Your task to perform on an android device: Open Youtube and go to "Your channel" Image 0: 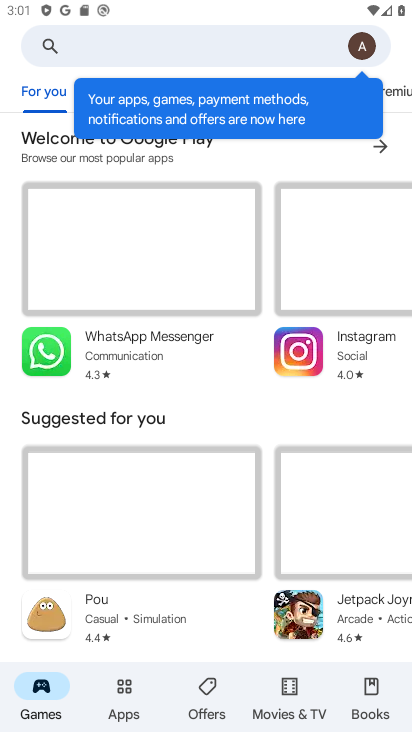
Step 0: press home button
Your task to perform on an android device: Open Youtube and go to "Your channel" Image 1: 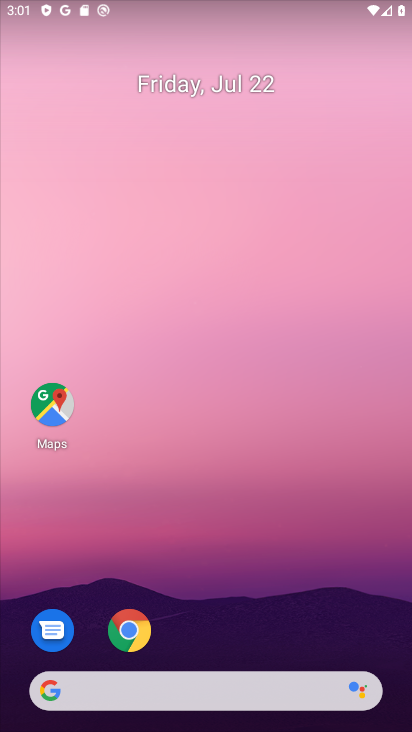
Step 1: drag from (227, 692) to (197, 87)
Your task to perform on an android device: Open Youtube and go to "Your channel" Image 2: 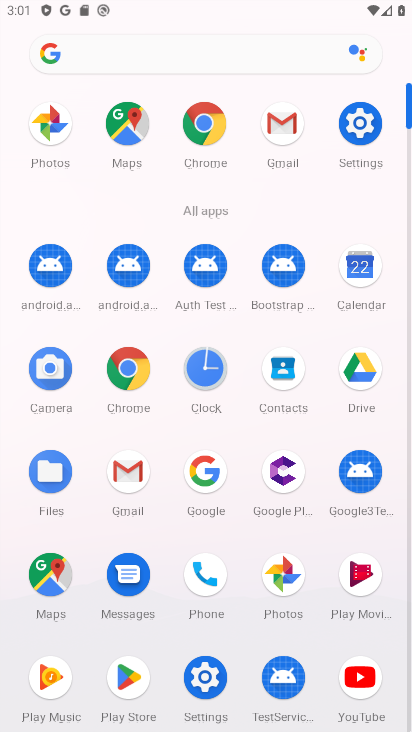
Step 2: click (365, 652)
Your task to perform on an android device: Open Youtube and go to "Your channel" Image 3: 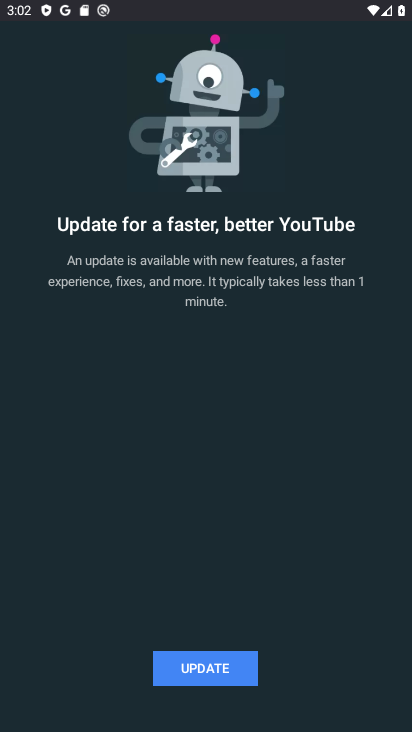
Step 3: click (235, 666)
Your task to perform on an android device: Open Youtube and go to "Your channel" Image 4: 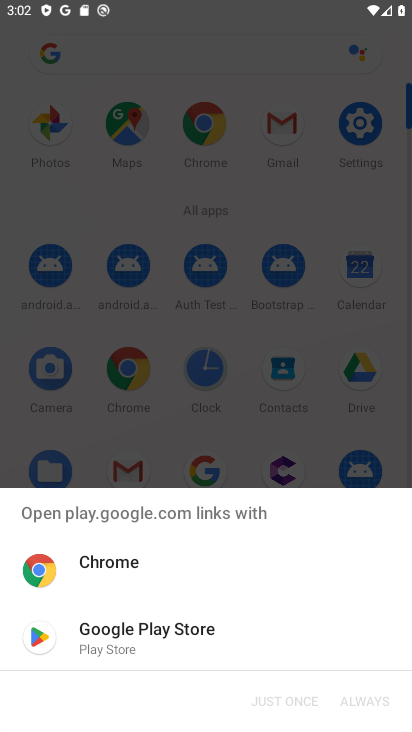
Step 4: click (131, 654)
Your task to perform on an android device: Open Youtube and go to "Your channel" Image 5: 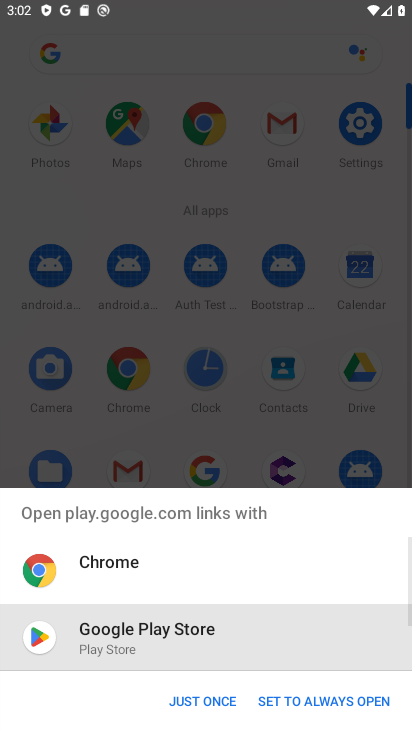
Step 5: click (182, 704)
Your task to perform on an android device: Open Youtube and go to "Your channel" Image 6: 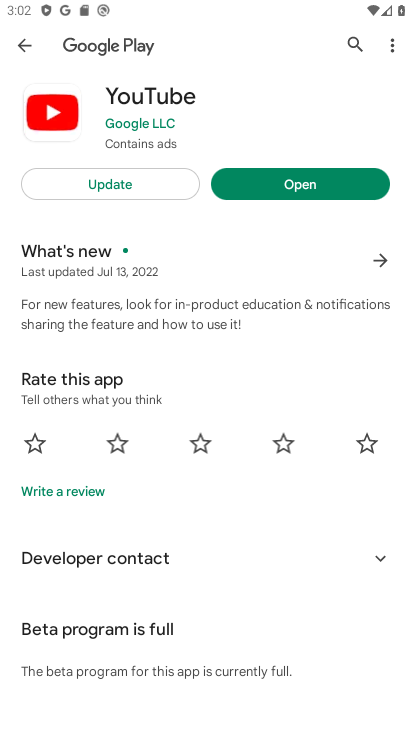
Step 6: click (164, 182)
Your task to perform on an android device: Open Youtube and go to "Your channel" Image 7: 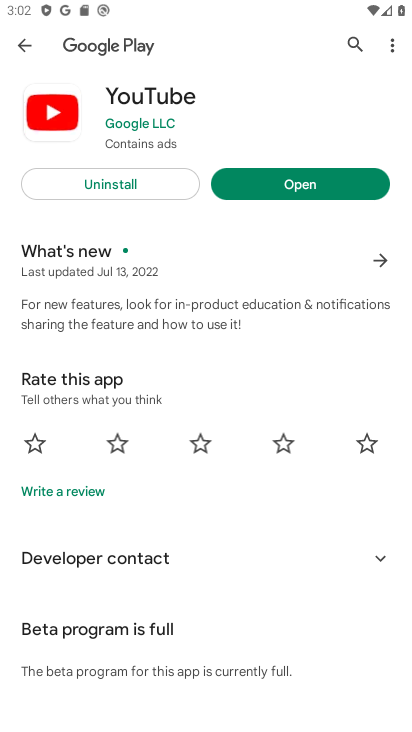
Step 7: click (273, 194)
Your task to perform on an android device: Open Youtube and go to "Your channel" Image 8: 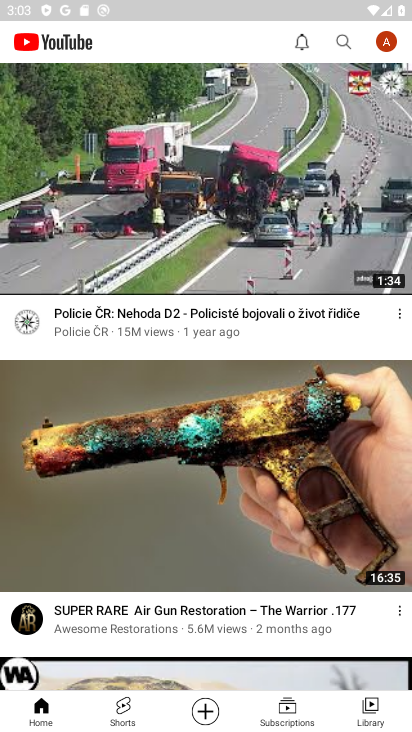
Step 8: click (380, 712)
Your task to perform on an android device: Open Youtube and go to "Your channel" Image 9: 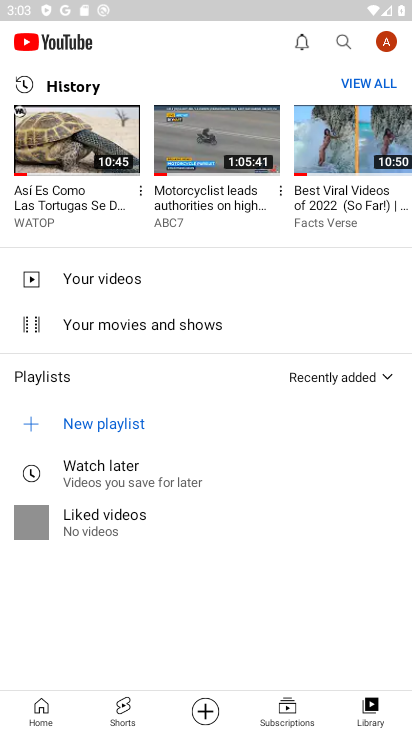
Step 9: click (383, 52)
Your task to perform on an android device: Open Youtube and go to "Your channel" Image 10: 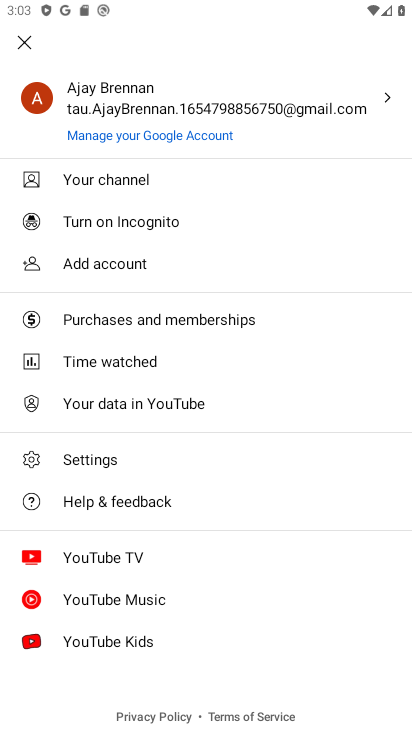
Step 10: click (125, 184)
Your task to perform on an android device: Open Youtube and go to "Your channel" Image 11: 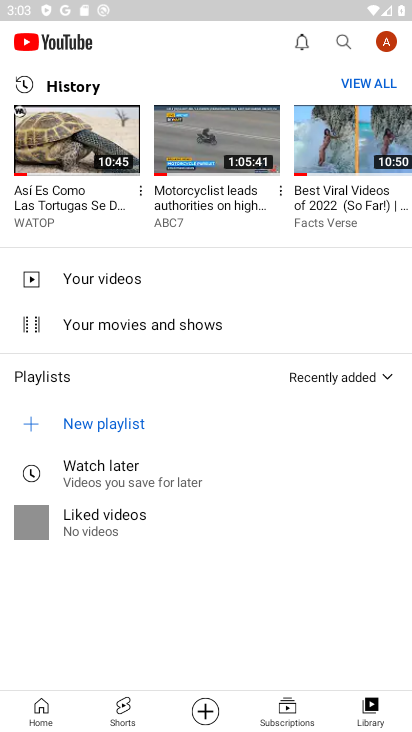
Step 11: task complete